Your task to perform on an android device: Search for seafood restaurants on Google Maps Image 0: 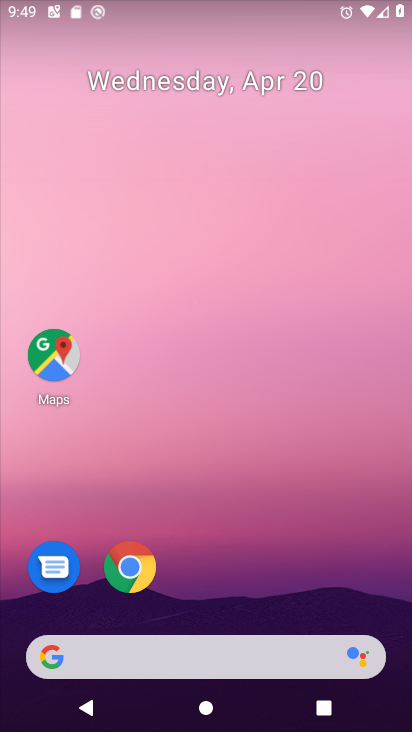
Step 0: drag from (294, 583) to (315, 230)
Your task to perform on an android device: Search for seafood restaurants on Google Maps Image 1: 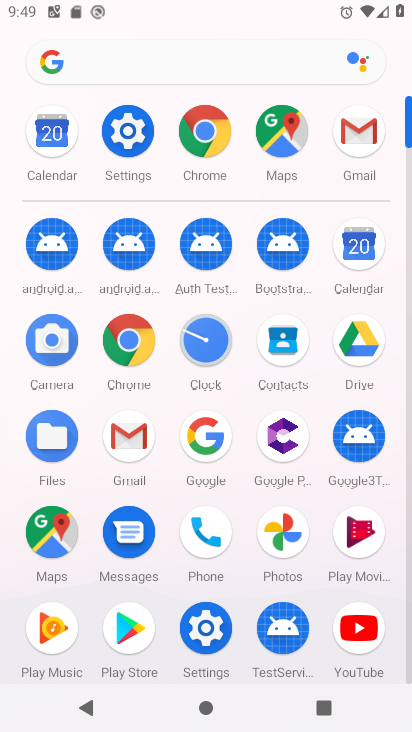
Step 1: click (38, 518)
Your task to perform on an android device: Search for seafood restaurants on Google Maps Image 2: 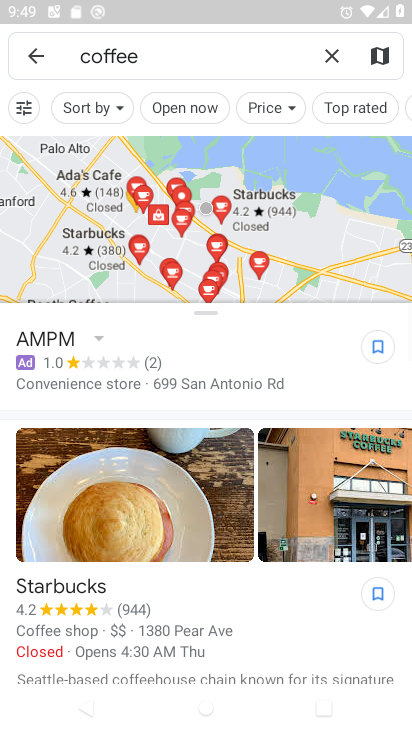
Step 2: click (235, 48)
Your task to perform on an android device: Search for seafood restaurants on Google Maps Image 3: 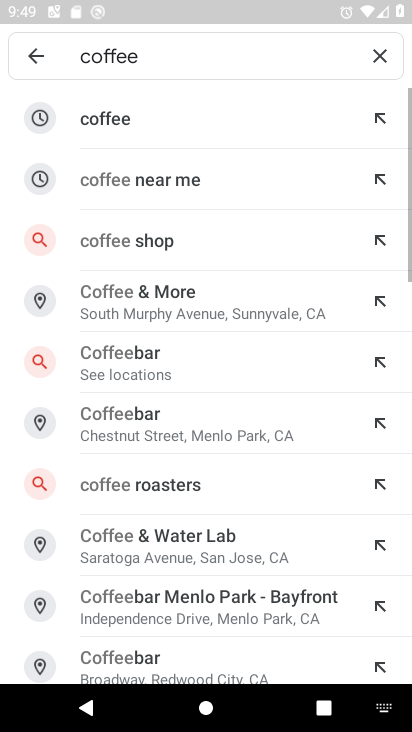
Step 3: click (374, 59)
Your task to perform on an android device: Search for seafood restaurants on Google Maps Image 4: 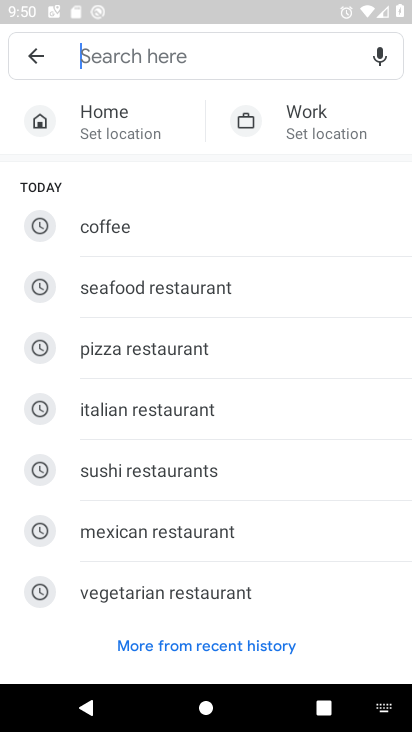
Step 4: type "seafood restaurants"
Your task to perform on an android device: Search for seafood restaurants on Google Maps Image 5: 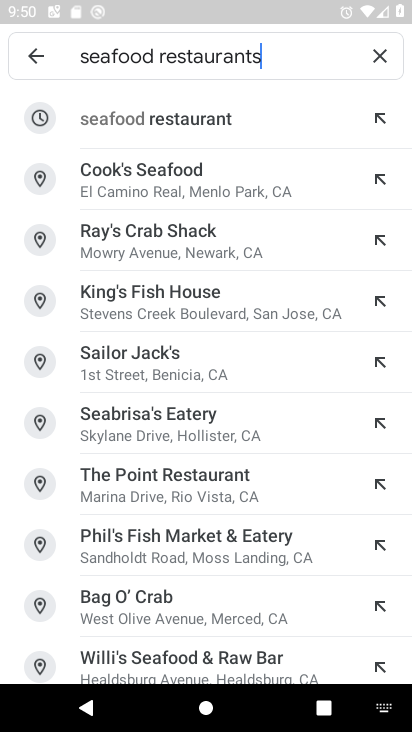
Step 5: click (231, 104)
Your task to perform on an android device: Search for seafood restaurants on Google Maps Image 6: 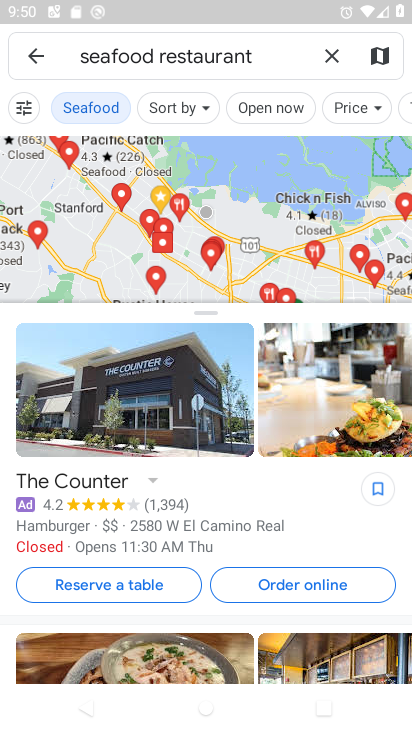
Step 6: task complete